Your task to perform on an android device: Open notification settings Image 0: 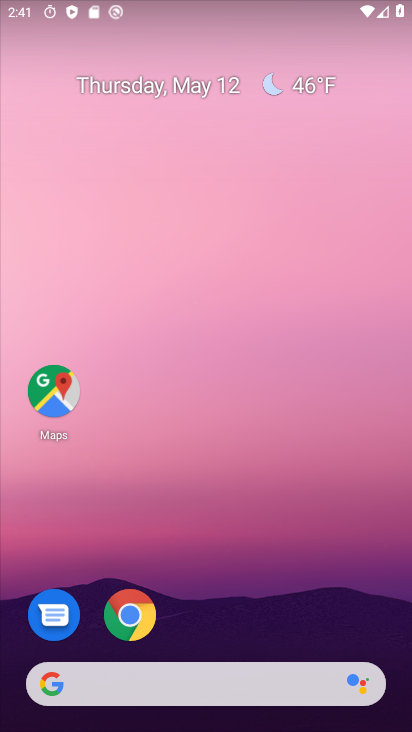
Step 0: drag from (207, 492) to (194, 95)
Your task to perform on an android device: Open notification settings Image 1: 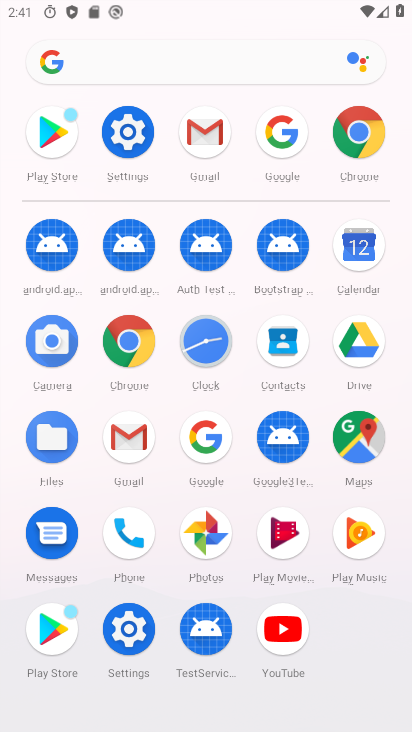
Step 1: click (121, 133)
Your task to perform on an android device: Open notification settings Image 2: 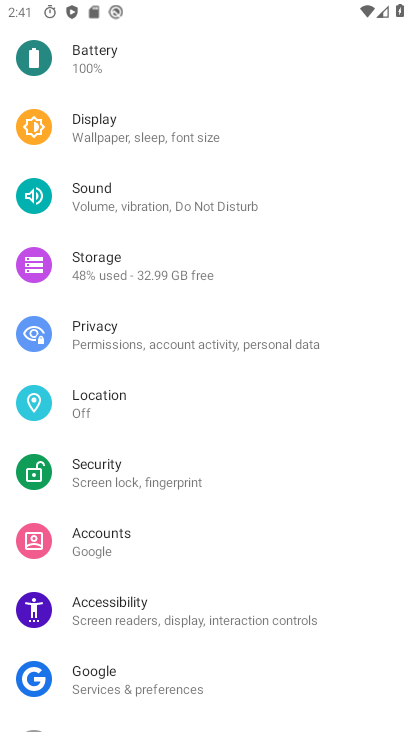
Step 2: drag from (141, 136) to (182, 607)
Your task to perform on an android device: Open notification settings Image 3: 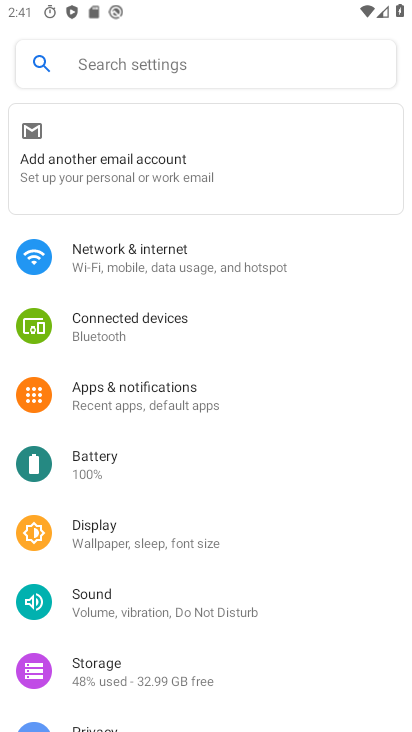
Step 3: click (164, 390)
Your task to perform on an android device: Open notification settings Image 4: 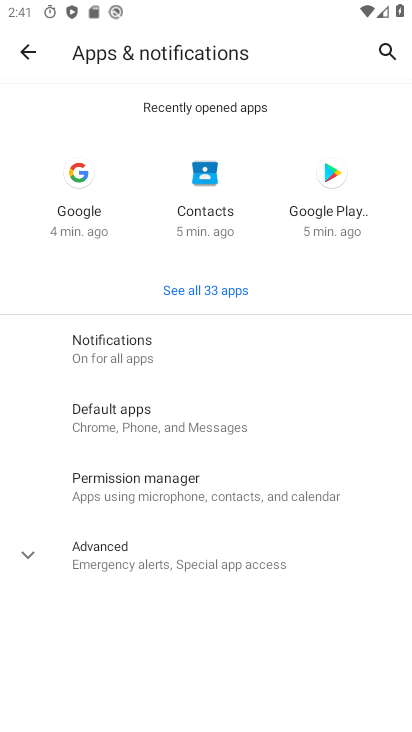
Step 4: click (134, 354)
Your task to perform on an android device: Open notification settings Image 5: 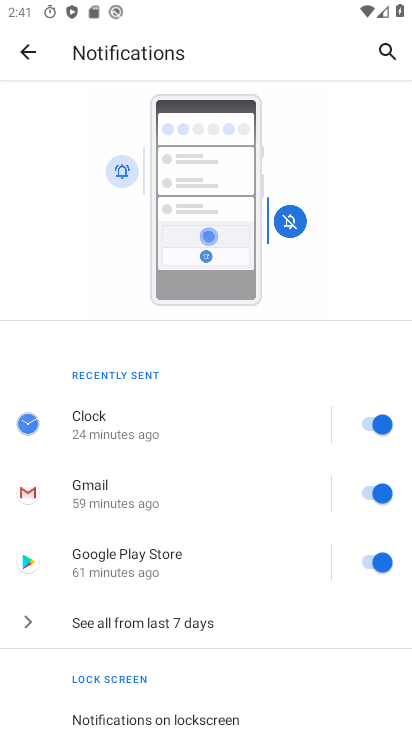
Step 5: task complete